Your task to perform on an android device: toggle wifi Image 0: 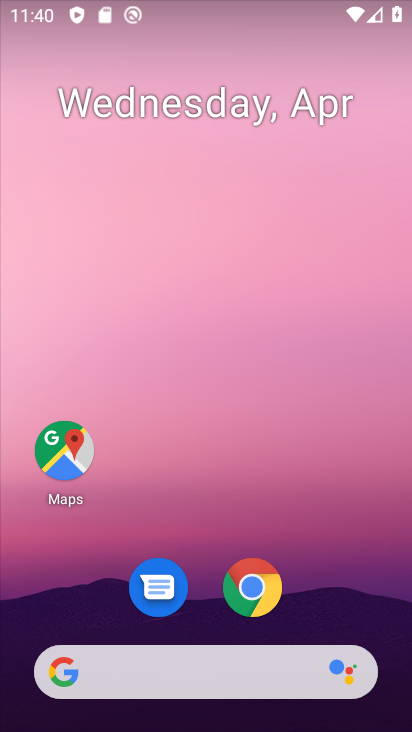
Step 0: drag from (327, 620) to (284, 127)
Your task to perform on an android device: toggle wifi Image 1: 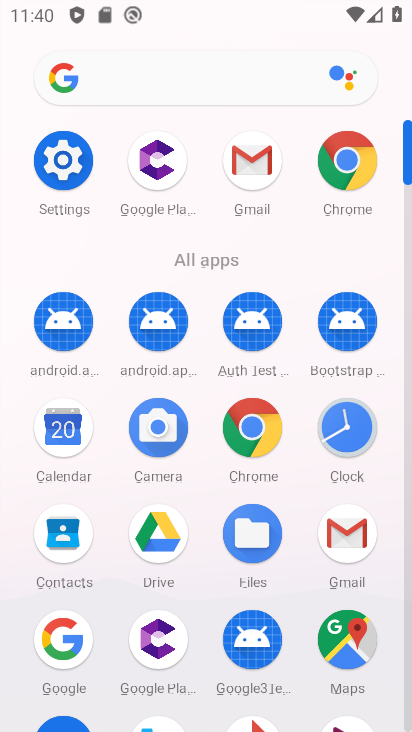
Step 1: click (60, 173)
Your task to perform on an android device: toggle wifi Image 2: 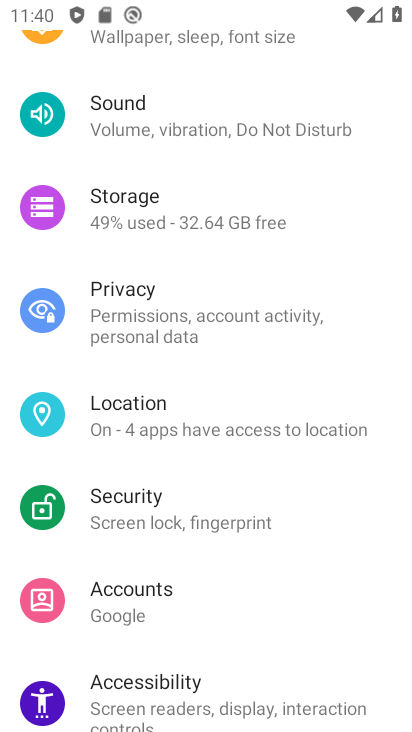
Step 2: drag from (171, 457) to (273, 731)
Your task to perform on an android device: toggle wifi Image 3: 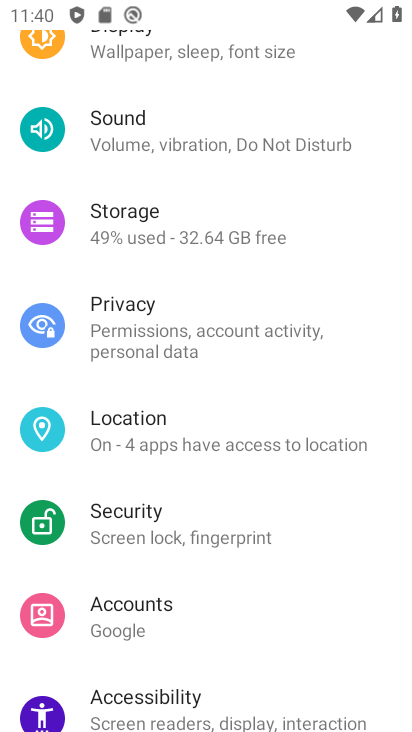
Step 3: drag from (294, 104) to (282, 449)
Your task to perform on an android device: toggle wifi Image 4: 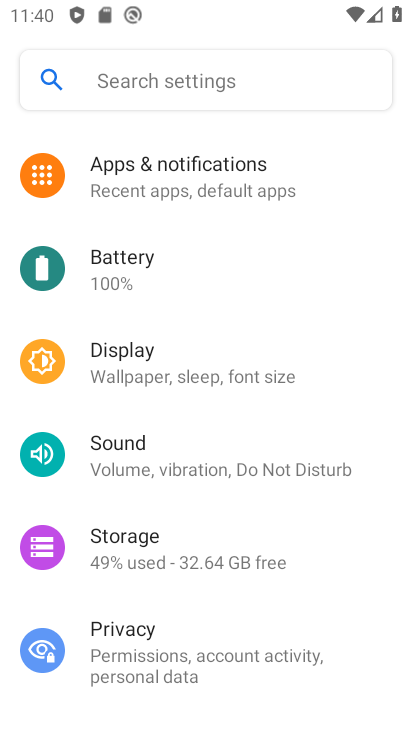
Step 4: drag from (261, 224) to (291, 573)
Your task to perform on an android device: toggle wifi Image 5: 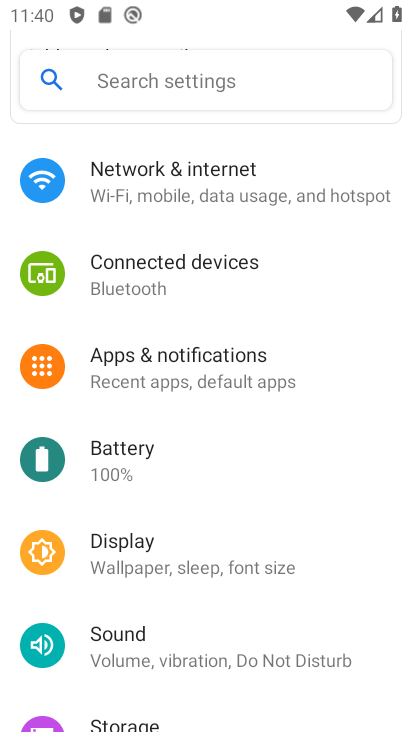
Step 5: click (234, 173)
Your task to perform on an android device: toggle wifi Image 6: 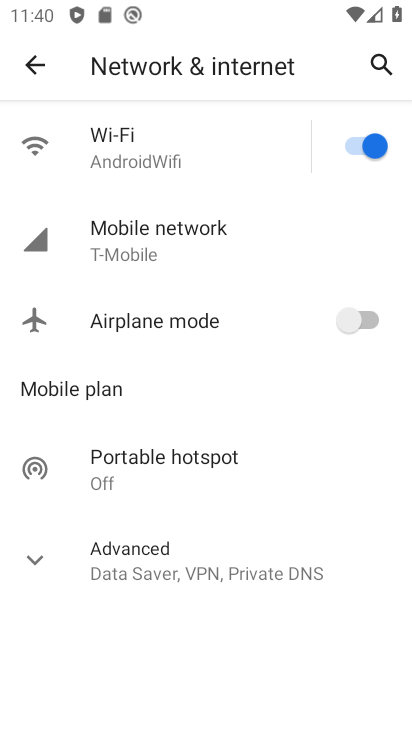
Step 6: click (240, 139)
Your task to perform on an android device: toggle wifi Image 7: 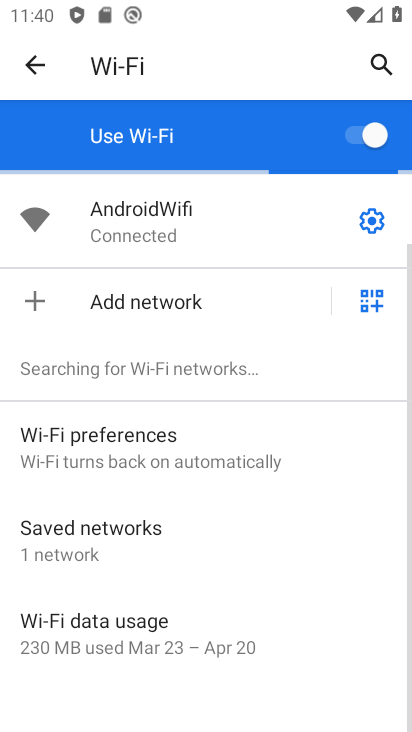
Step 7: click (342, 129)
Your task to perform on an android device: toggle wifi Image 8: 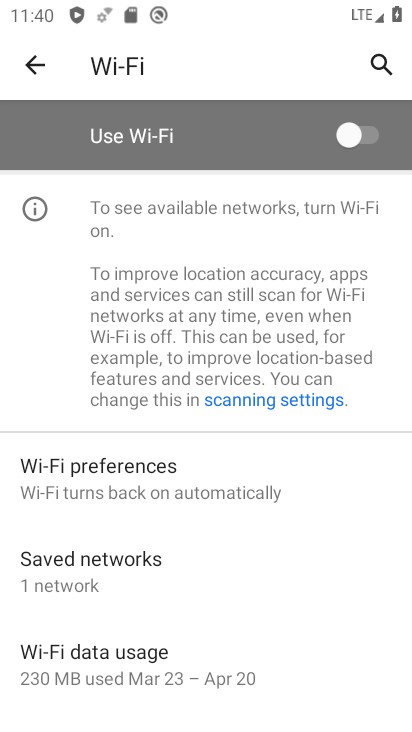
Step 8: task complete